Your task to perform on an android device: Open display settings Image 0: 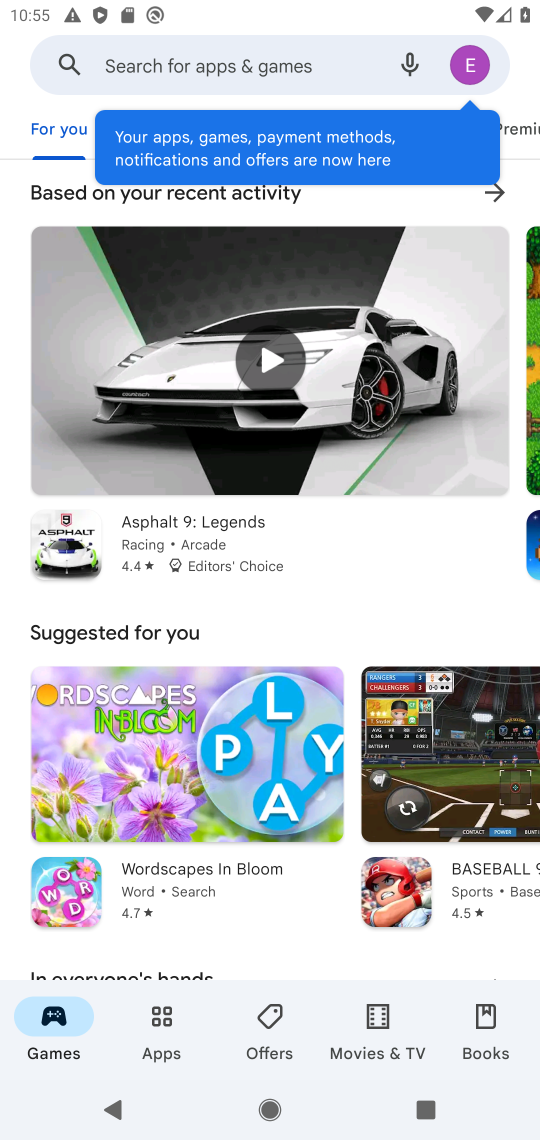
Step 0: press home button
Your task to perform on an android device: Open display settings Image 1: 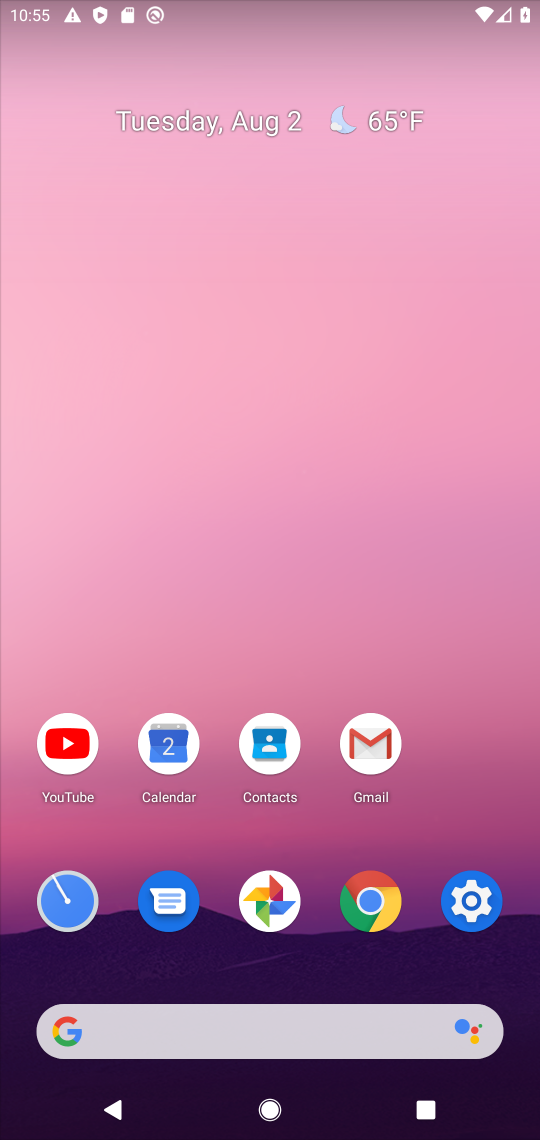
Step 1: click (463, 908)
Your task to perform on an android device: Open display settings Image 2: 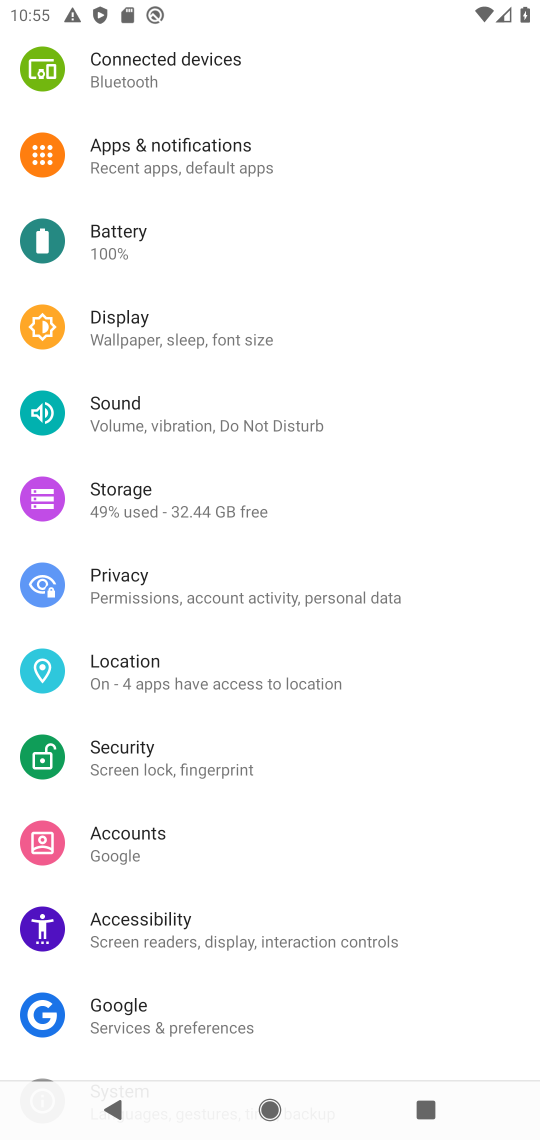
Step 2: click (103, 321)
Your task to perform on an android device: Open display settings Image 3: 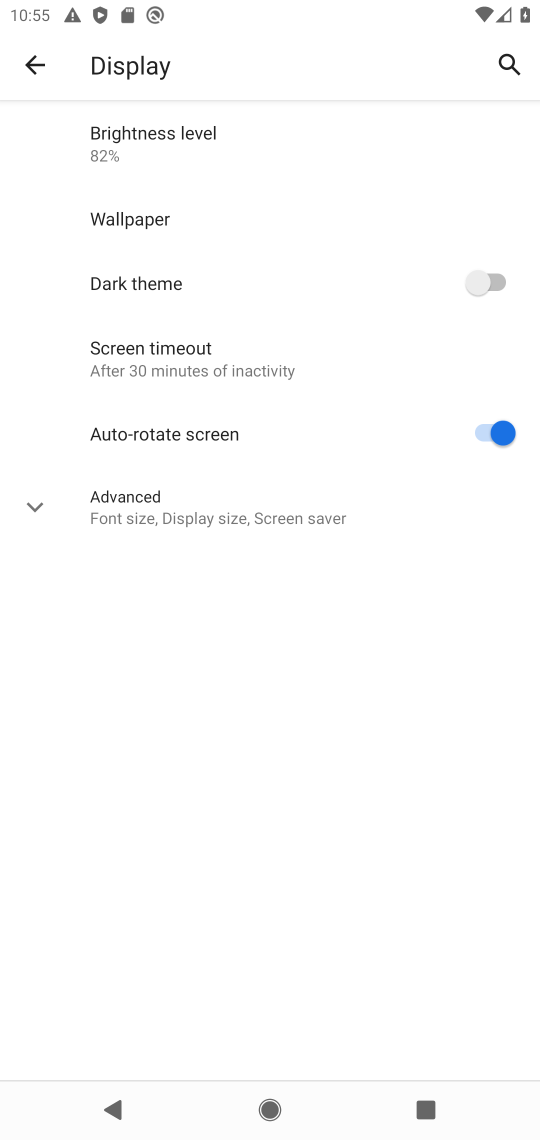
Step 3: task complete